Your task to perform on an android device: turn off priority inbox in the gmail app Image 0: 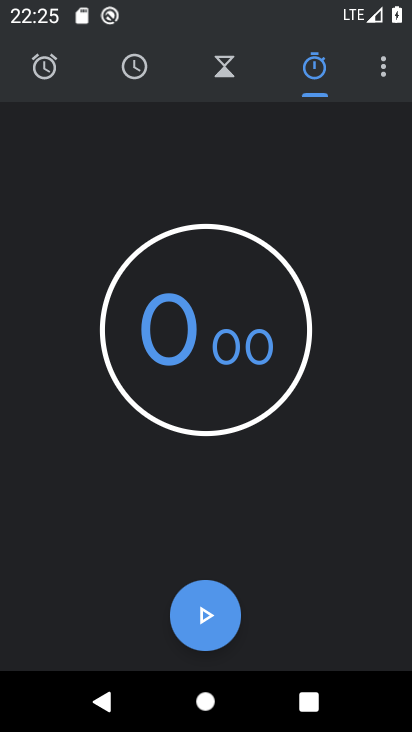
Step 0: press home button
Your task to perform on an android device: turn off priority inbox in the gmail app Image 1: 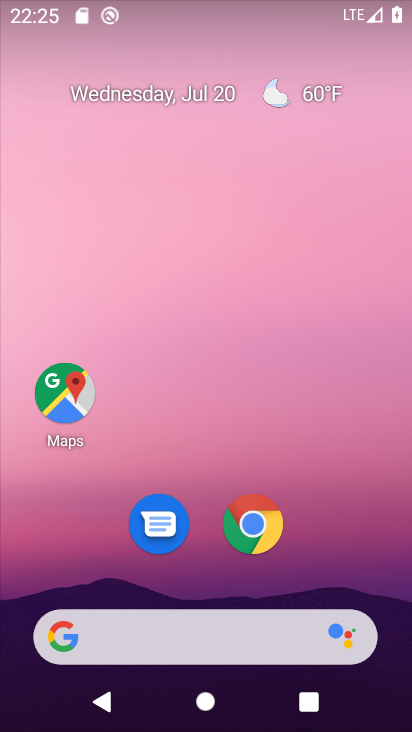
Step 1: drag from (328, 519) to (354, 26)
Your task to perform on an android device: turn off priority inbox in the gmail app Image 2: 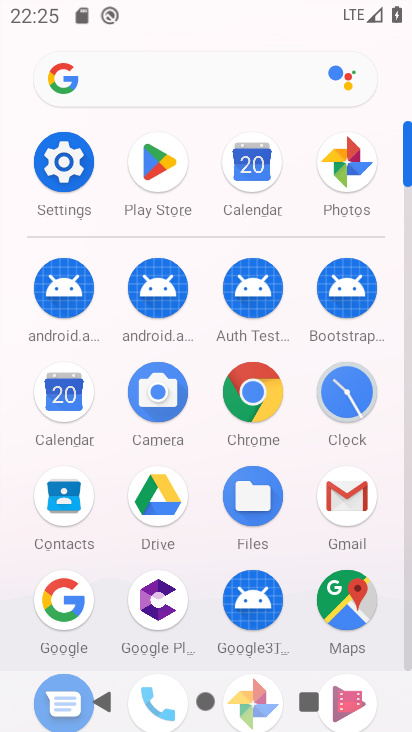
Step 2: click (343, 485)
Your task to perform on an android device: turn off priority inbox in the gmail app Image 3: 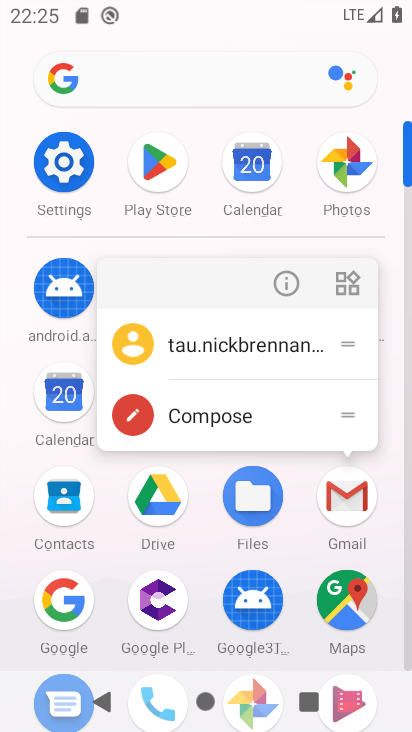
Step 3: click (345, 495)
Your task to perform on an android device: turn off priority inbox in the gmail app Image 4: 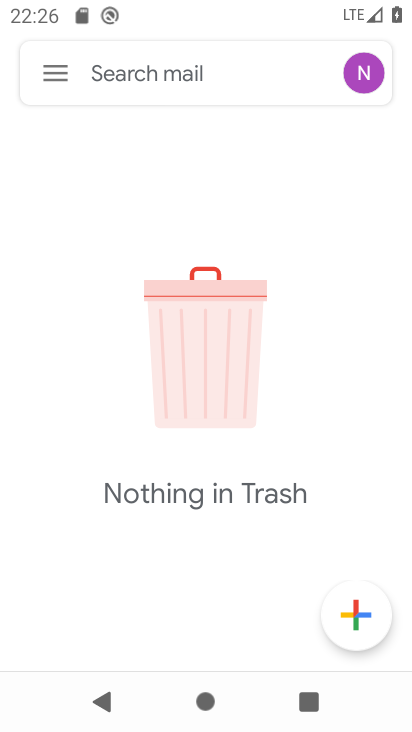
Step 4: click (53, 68)
Your task to perform on an android device: turn off priority inbox in the gmail app Image 5: 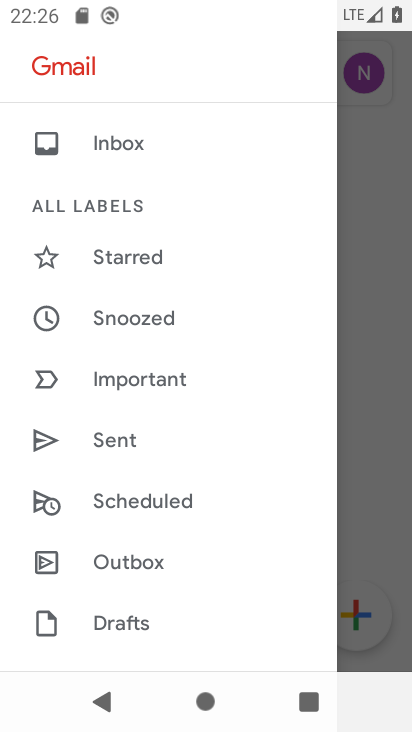
Step 5: drag from (164, 539) to (264, 0)
Your task to perform on an android device: turn off priority inbox in the gmail app Image 6: 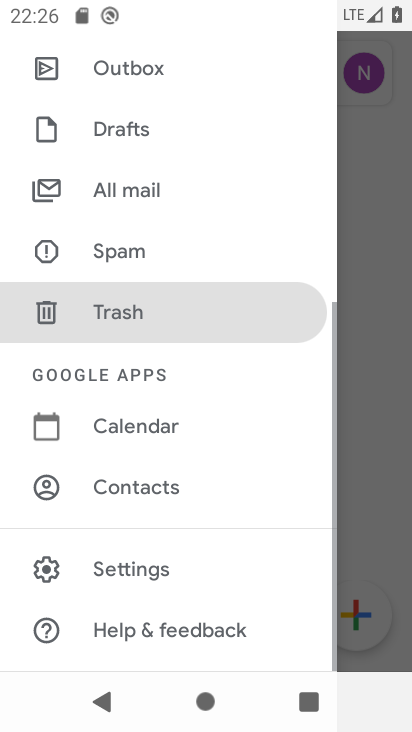
Step 6: click (151, 569)
Your task to perform on an android device: turn off priority inbox in the gmail app Image 7: 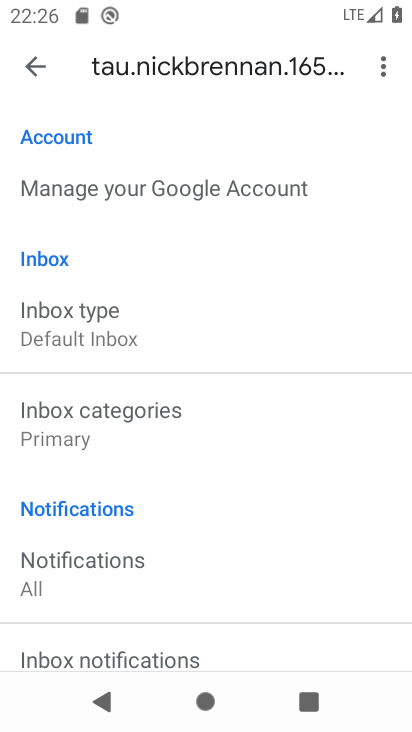
Step 7: click (102, 327)
Your task to perform on an android device: turn off priority inbox in the gmail app Image 8: 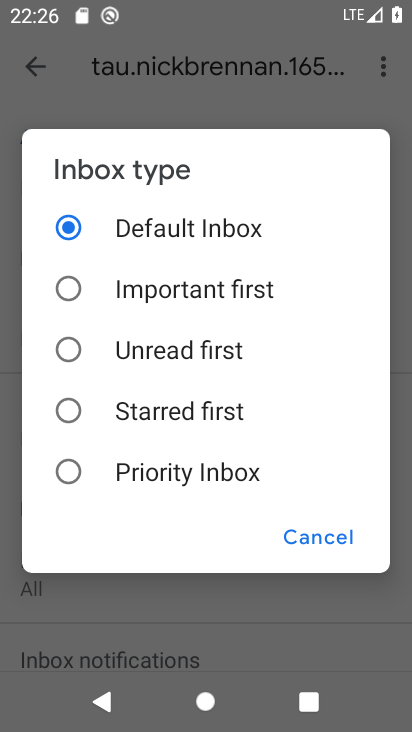
Step 8: click (65, 464)
Your task to perform on an android device: turn off priority inbox in the gmail app Image 9: 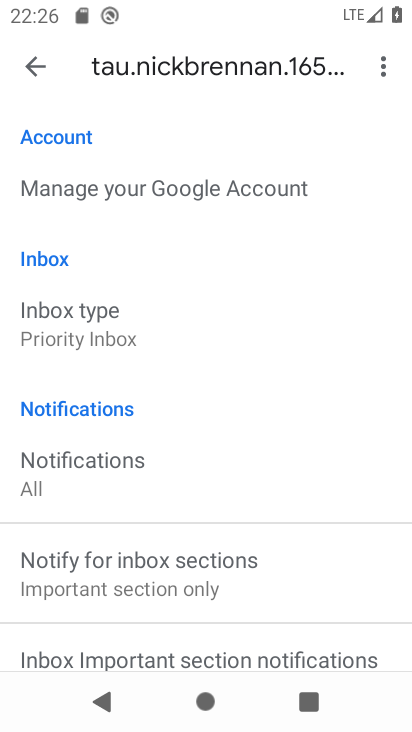
Step 9: task complete